Your task to perform on an android device: Search for sushi restaurants on Maps Image 0: 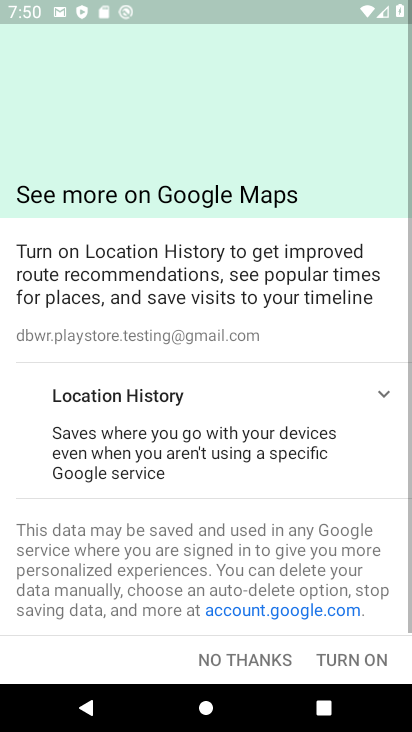
Step 0: press home button
Your task to perform on an android device: Search for sushi restaurants on Maps Image 1: 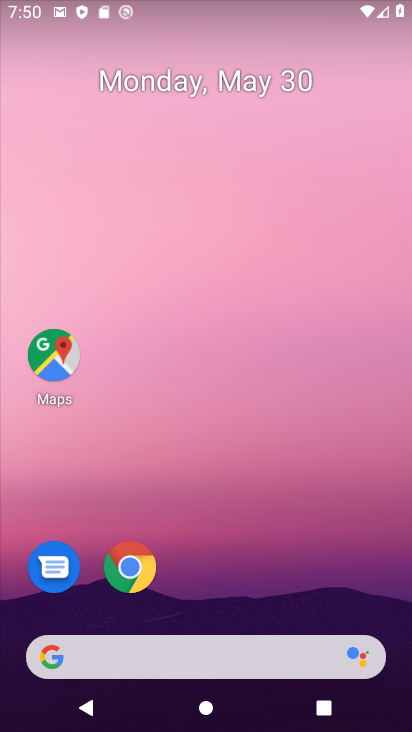
Step 1: click (61, 361)
Your task to perform on an android device: Search for sushi restaurants on Maps Image 2: 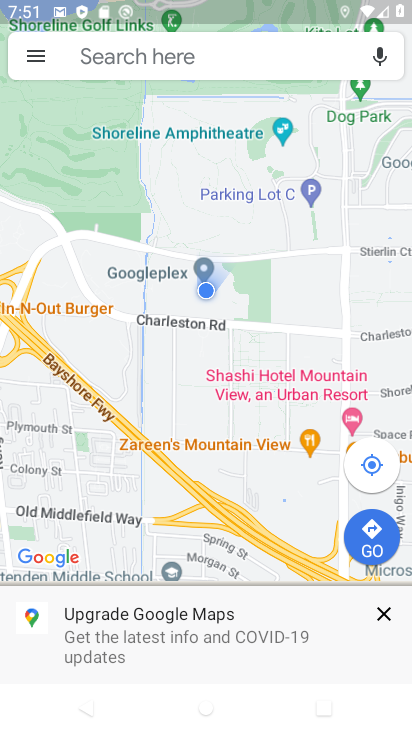
Step 2: click (131, 49)
Your task to perform on an android device: Search for sushi restaurants on Maps Image 3: 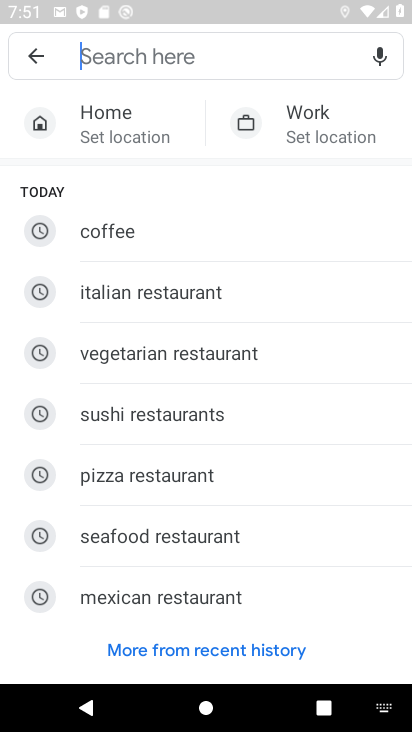
Step 3: click (156, 398)
Your task to perform on an android device: Search for sushi restaurants on Maps Image 4: 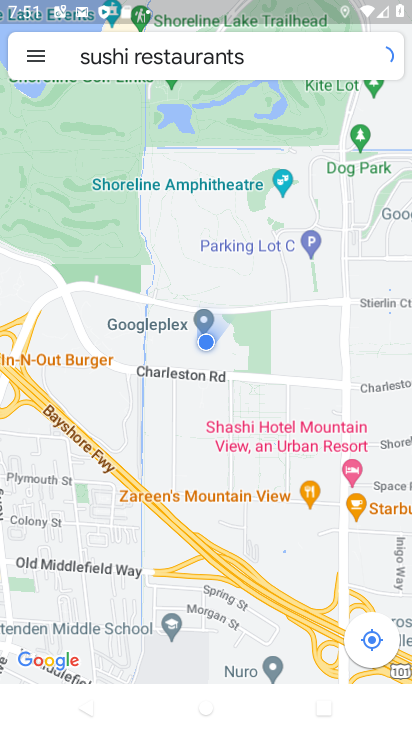
Step 4: task complete